Your task to perform on an android device: add a contact Image 0: 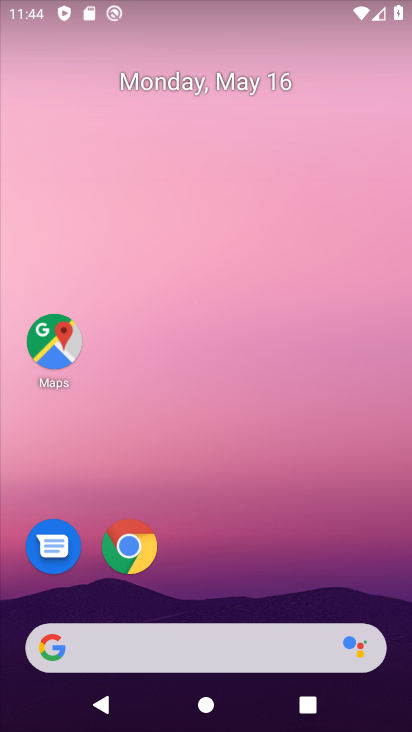
Step 0: drag from (396, 635) to (333, 0)
Your task to perform on an android device: add a contact Image 1: 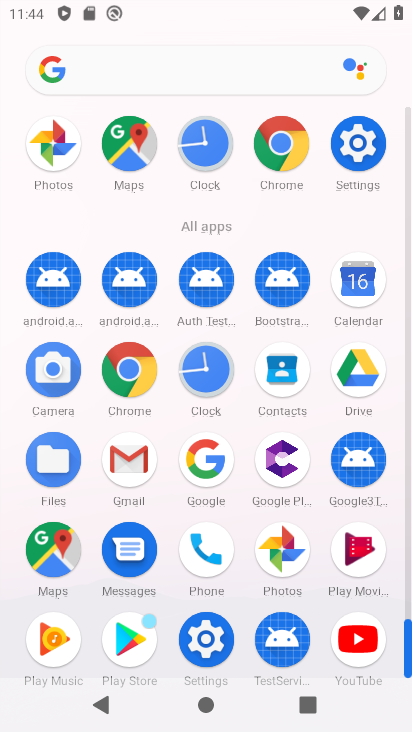
Step 1: click (405, 598)
Your task to perform on an android device: add a contact Image 2: 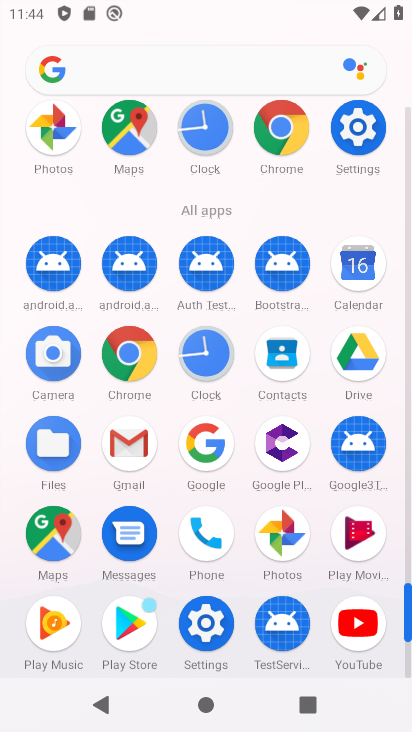
Step 2: click (290, 354)
Your task to perform on an android device: add a contact Image 3: 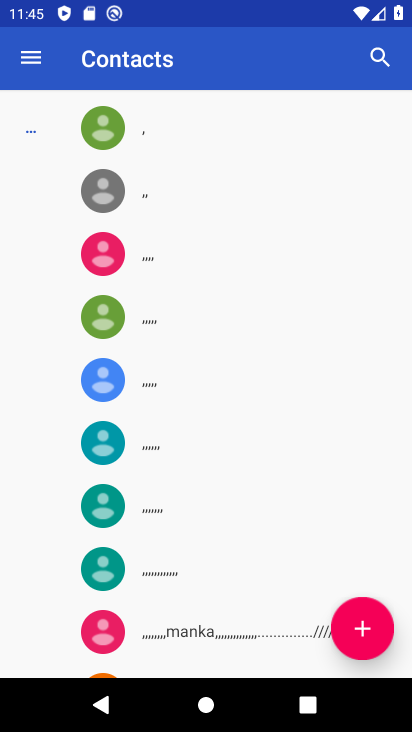
Step 3: click (359, 625)
Your task to perform on an android device: add a contact Image 4: 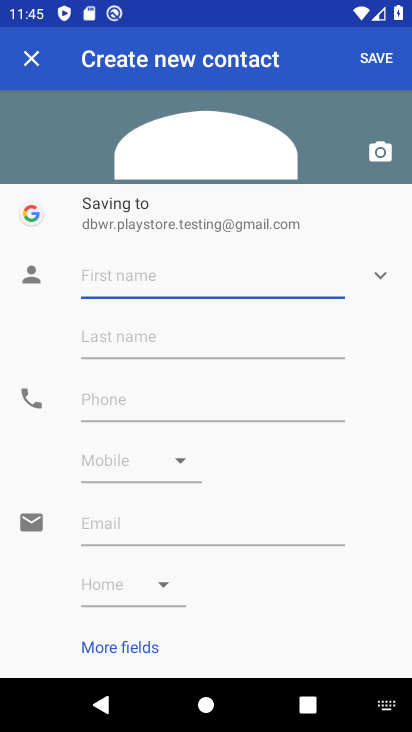
Step 4: type "kjhftrru"
Your task to perform on an android device: add a contact Image 5: 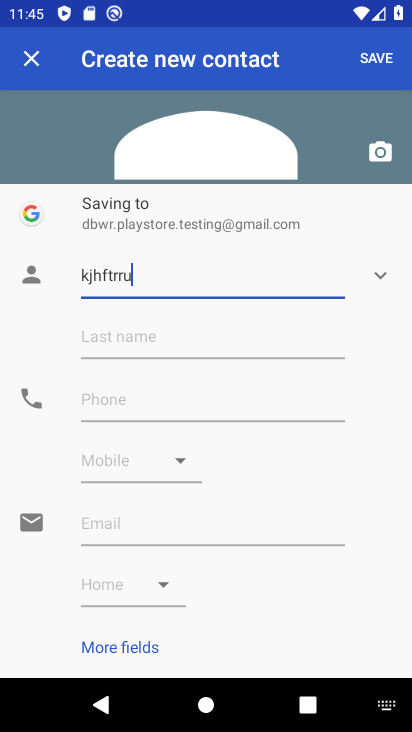
Step 5: click (145, 394)
Your task to perform on an android device: add a contact Image 6: 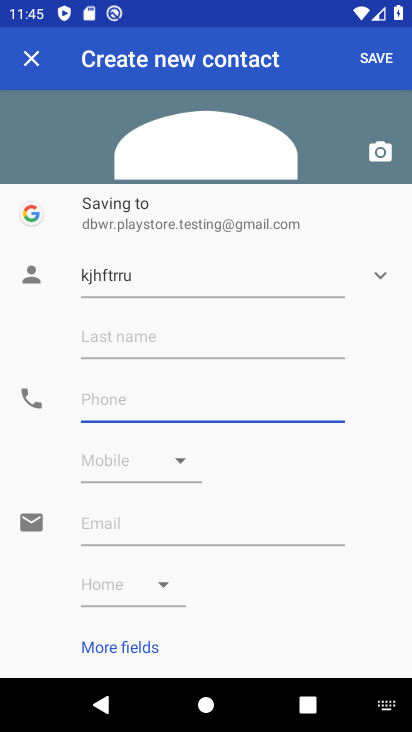
Step 6: type "980456703"
Your task to perform on an android device: add a contact Image 7: 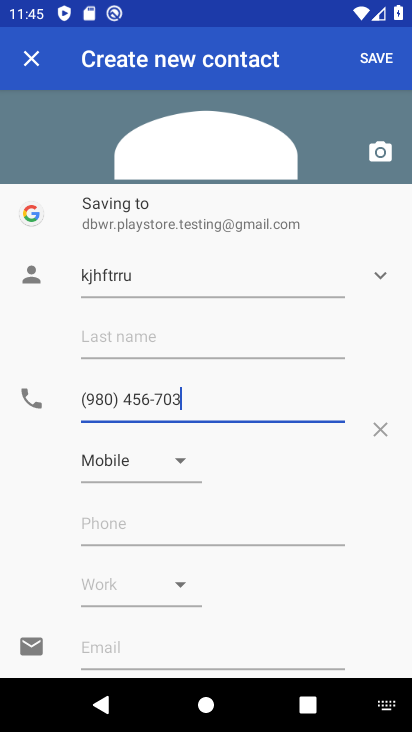
Step 7: click (173, 457)
Your task to perform on an android device: add a contact Image 8: 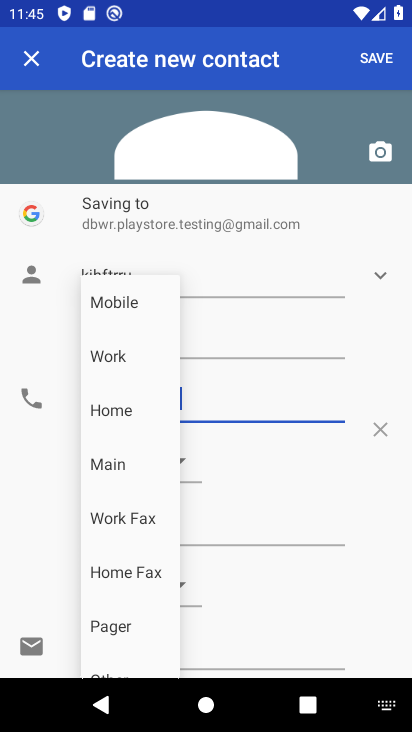
Step 8: click (109, 397)
Your task to perform on an android device: add a contact Image 9: 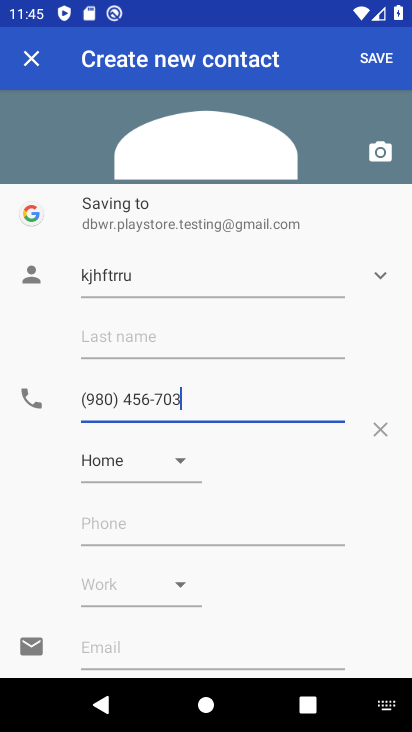
Step 9: click (373, 62)
Your task to perform on an android device: add a contact Image 10: 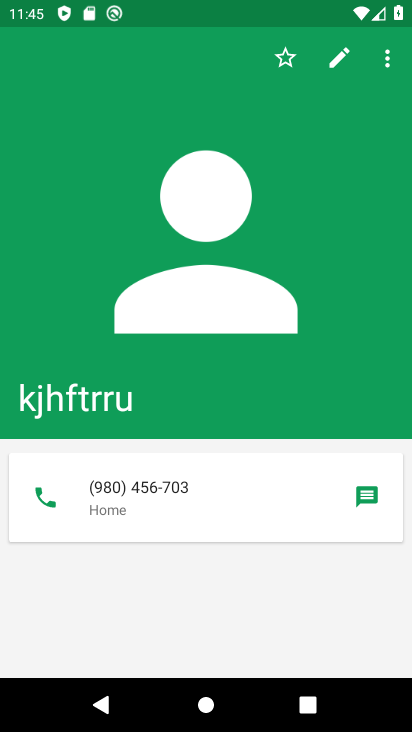
Step 10: task complete